Your task to perform on an android device: delete the emails in spam in the gmail app Image 0: 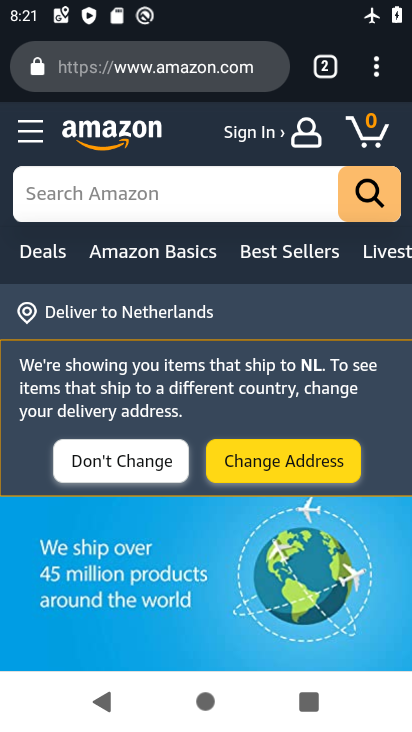
Step 0: press home button
Your task to perform on an android device: delete the emails in spam in the gmail app Image 1: 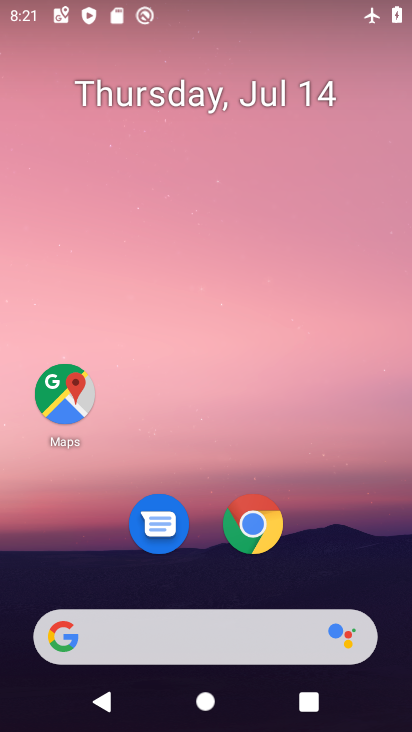
Step 1: drag from (330, 533) to (278, 64)
Your task to perform on an android device: delete the emails in spam in the gmail app Image 2: 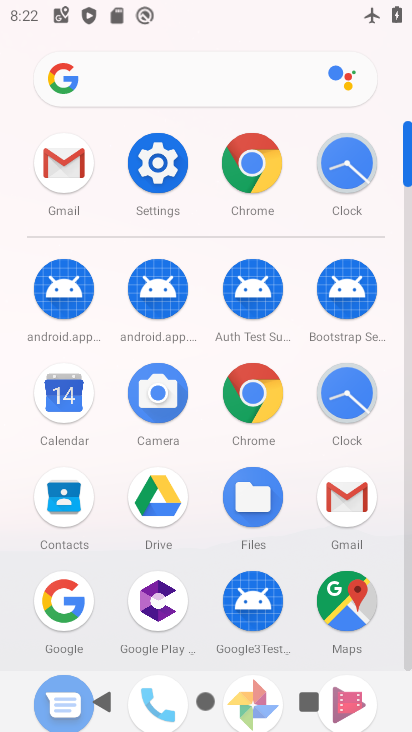
Step 2: click (54, 153)
Your task to perform on an android device: delete the emails in spam in the gmail app Image 3: 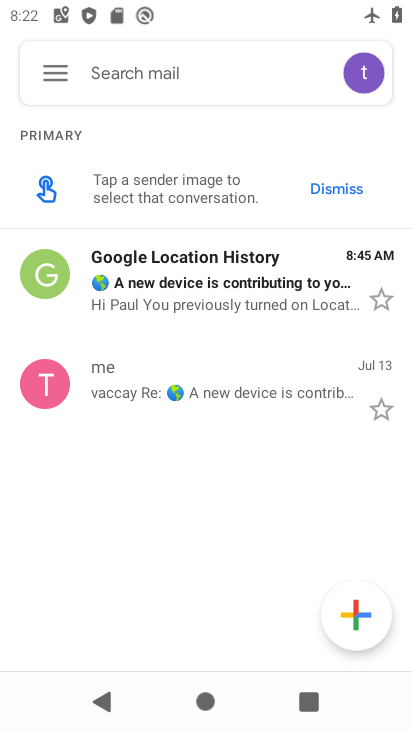
Step 3: click (61, 81)
Your task to perform on an android device: delete the emails in spam in the gmail app Image 4: 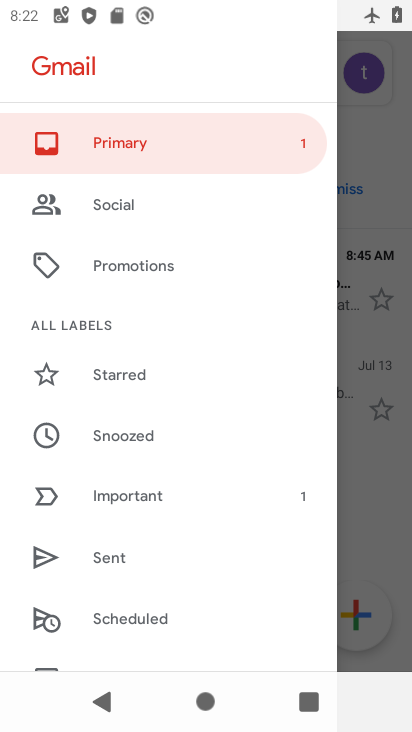
Step 4: drag from (145, 533) to (180, 263)
Your task to perform on an android device: delete the emails in spam in the gmail app Image 5: 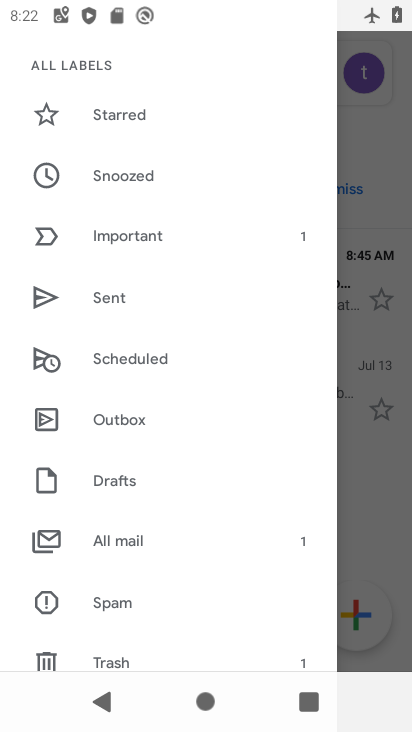
Step 5: click (125, 603)
Your task to perform on an android device: delete the emails in spam in the gmail app Image 6: 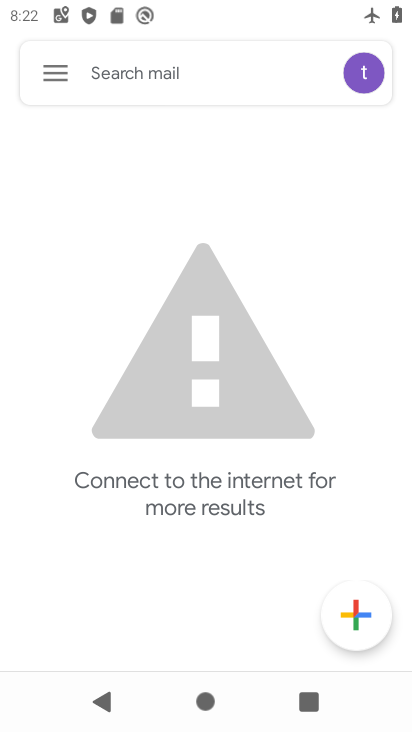
Step 6: task complete